Your task to perform on an android device: Open Wikipedia Image 0: 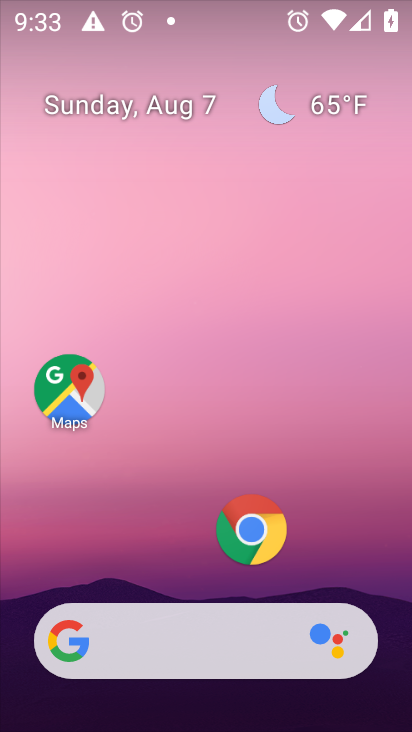
Step 0: click (252, 535)
Your task to perform on an android device: Open Wikipedia Image 1: 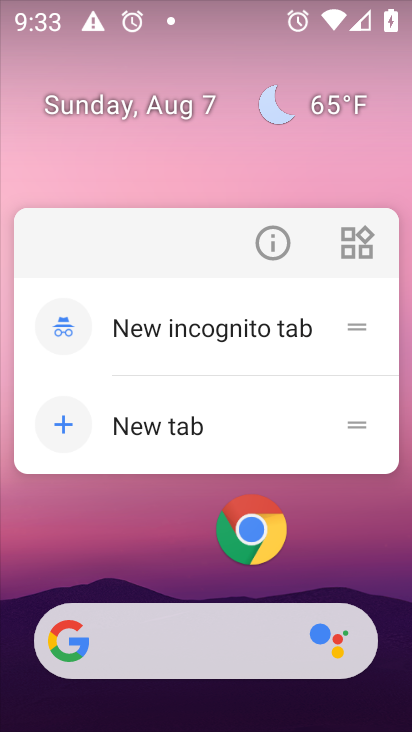
Step 1: click (246, 544)
Your task to perform on an android device: Open Wikipedia Image 2: 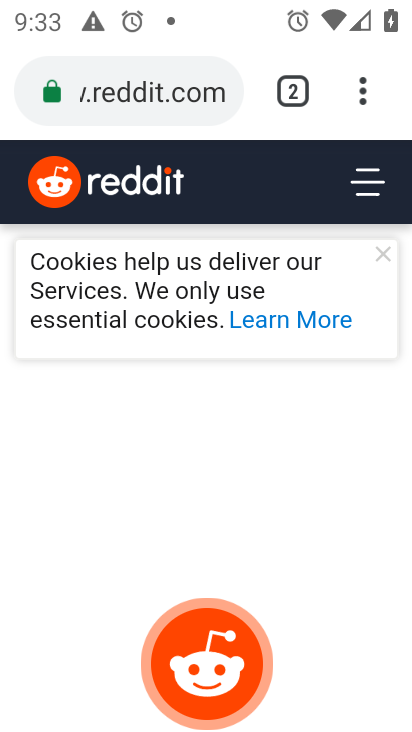
Step 2: click (127, 89)
Your task to perform on an android device: Open Wikipedia Image 3: 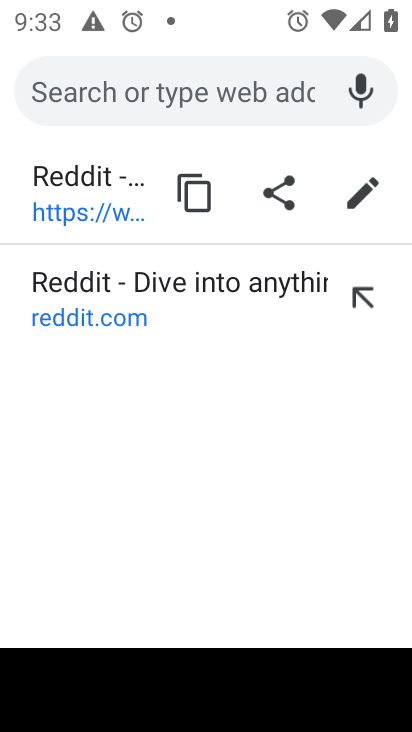
Step 3: type "wikipedia"
Your task to perform on an android device: Open Wikipedia Image 4: 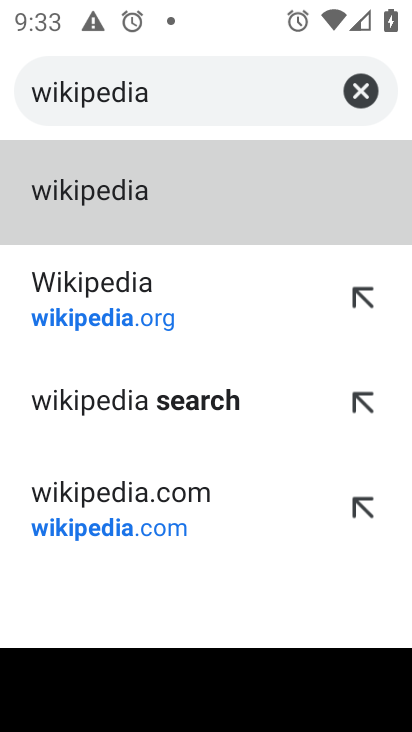
Step 4: click (130, 305)
Your task to perform on an android device: Open Wikipedia Image 5: 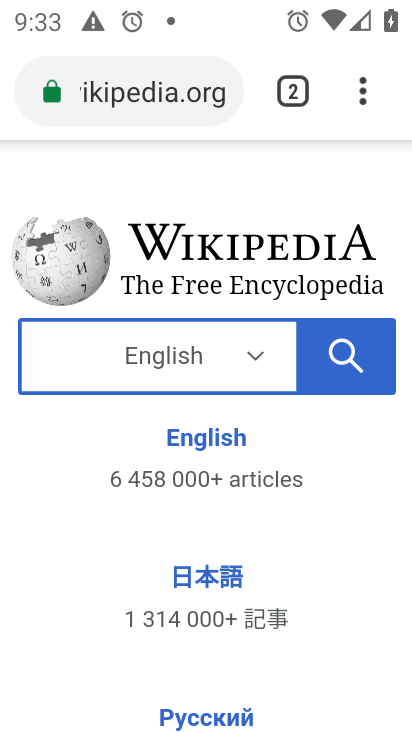
Step 5: task complete